Your task to perform on an android device: change the clock style Image 0: 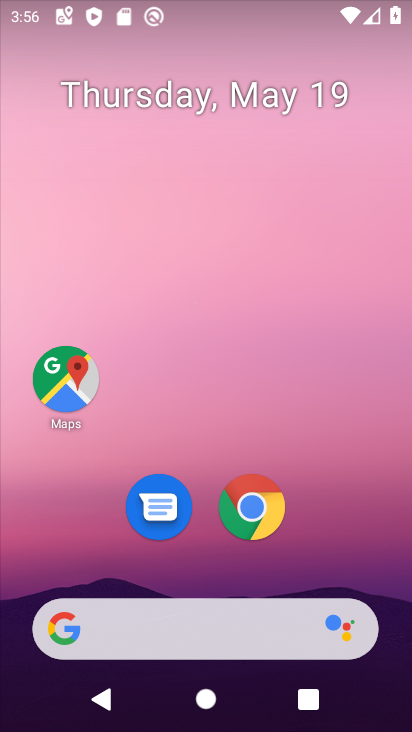
Step 0: drag from (398, 635) to (383, 266)
Your task to perform on an android device: change the clock style Image 1: 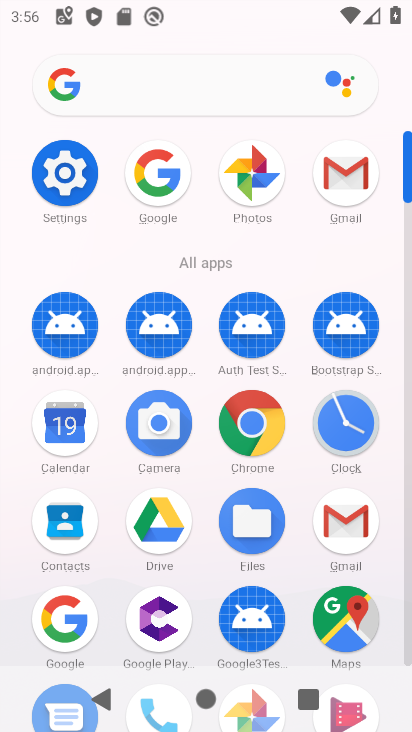
Step 1: click (344, 442)
Your task to perform on an android device: change the clock style Image 2: 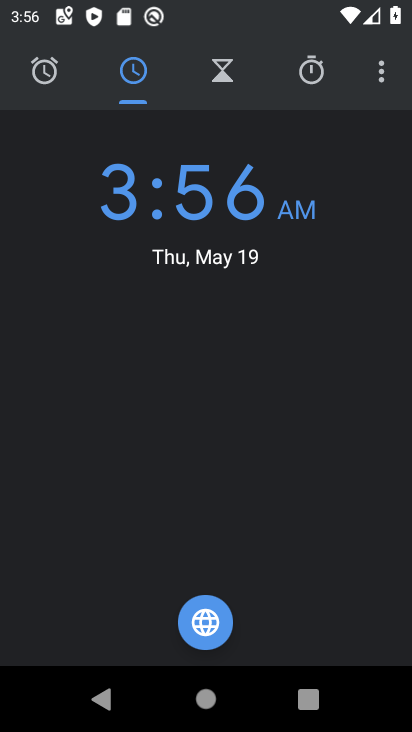
Step 2: click (46, 73)
Your task to perform on an android device: change the clock style Image 3: 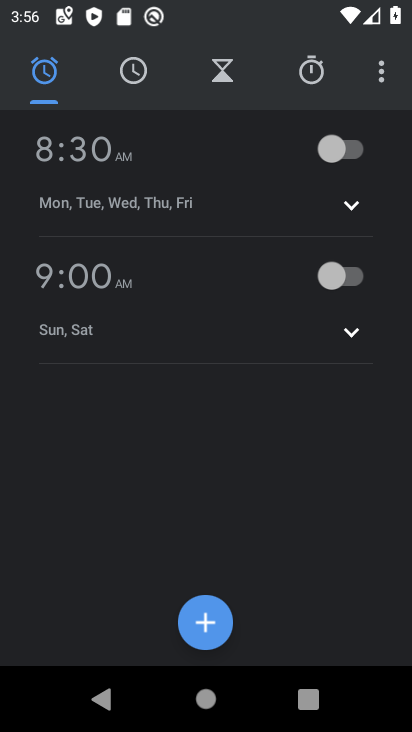
Step 3: click (380, 65)
Your task to perform on an android device: change the clock style Image 4: 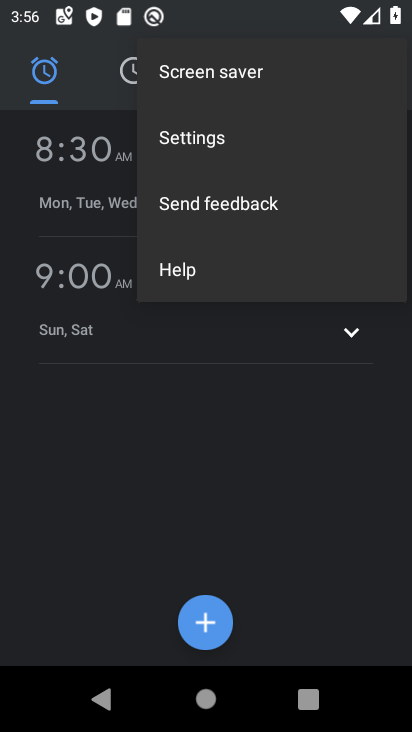
Step 4: click (169, 136)
Your task to perform on an android device: change the clock style Image 5: 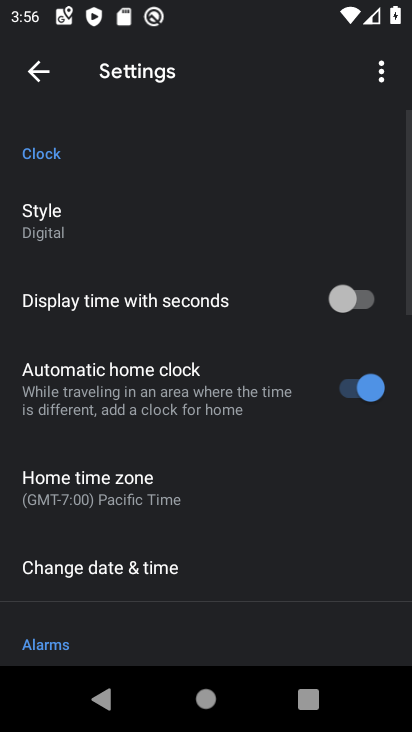
Step 5: click (39, 220)
Your task to perform on an android device: change the clock style Image 6: 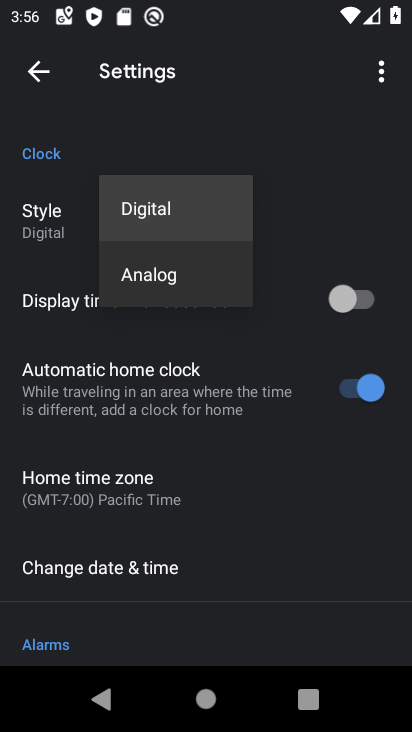
Step 6: click (135, 279)
Your task to perform on an android device: change the clock style Image 7: 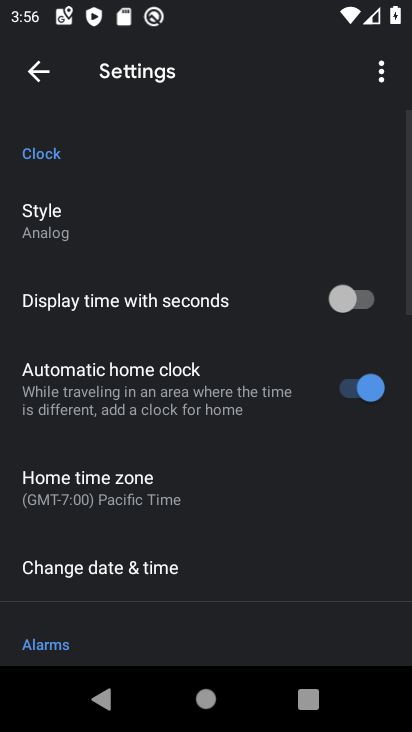
Step 7: task complete